Your task to perform on an android device: Go to sound settings Image 0: 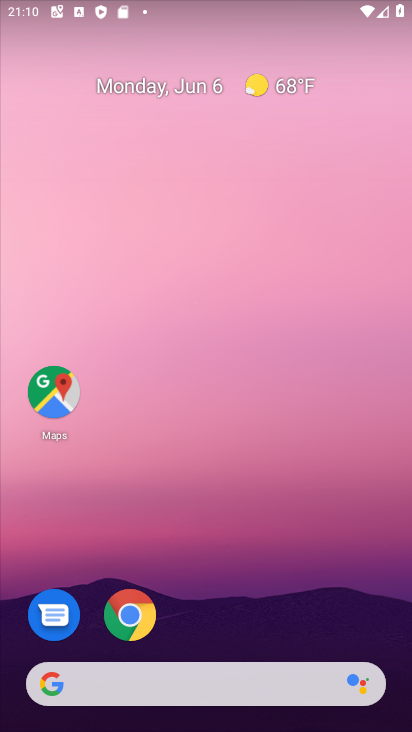
Step 0: drag from (402, 708) to (361, 139)
Your task to perform on an android device: Go to sound settings Image 1: 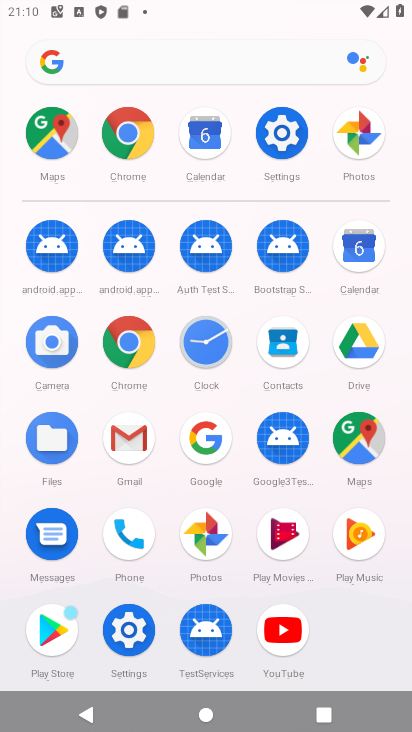
Step 1: click (140, 628)
Your task to perform on an android device: Go to sound settings Image 2: 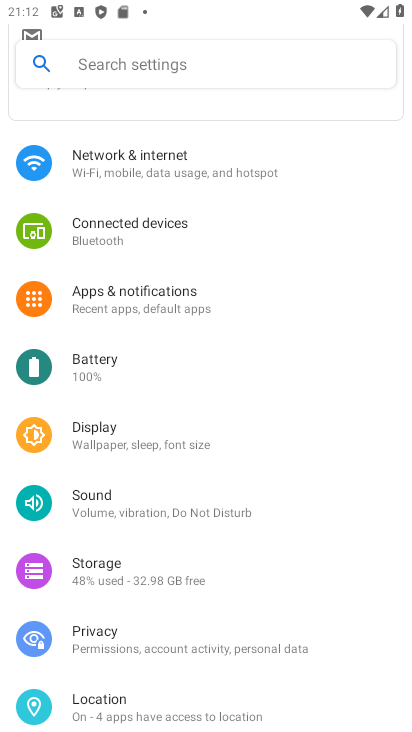
Step 2: click (108, 498)
Your task to perform on an android device: Go to sound settings Image 3: 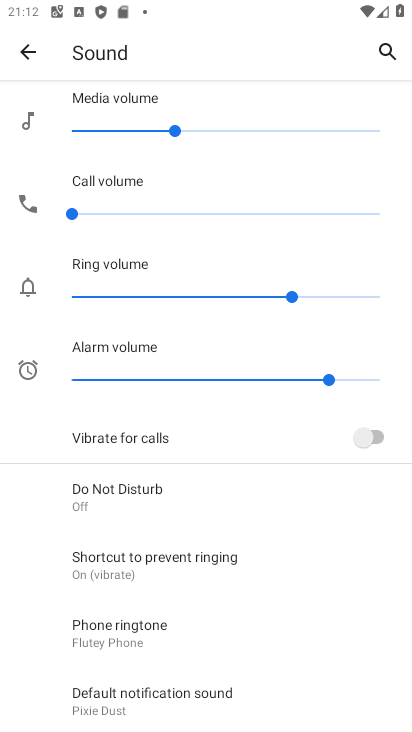
Step 3: task complete